Your task to perform on an android device: Open the stopwatch Image 0: 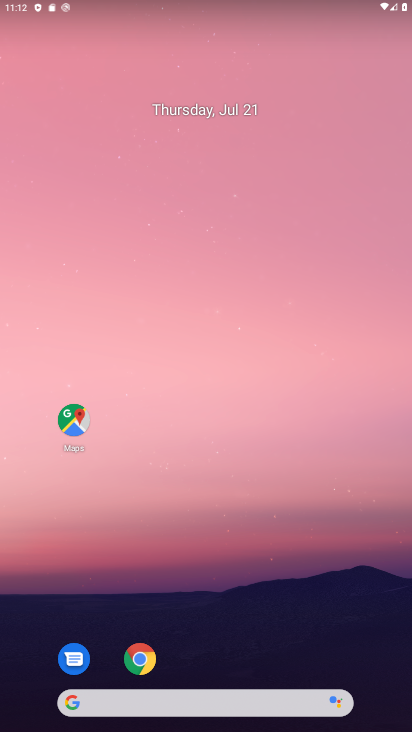
Step 0: drag from (219, 635) to (336, 2)
Your task to perform on an android device: Open the stopwatch Image 1: 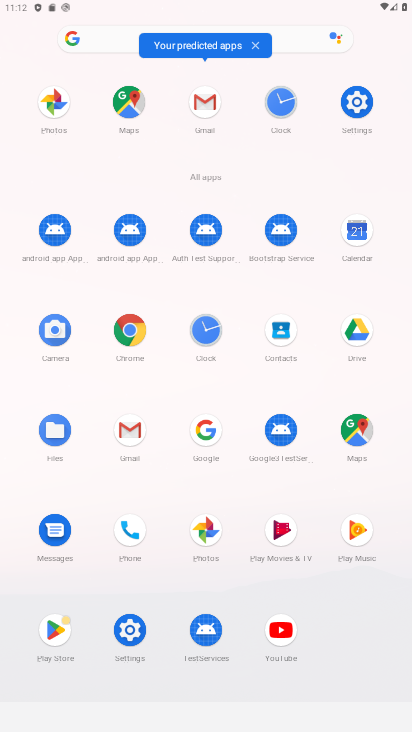
Step 1: click (280, 131)
Your task to perform on an android device: Open the stopwatch Image 2: 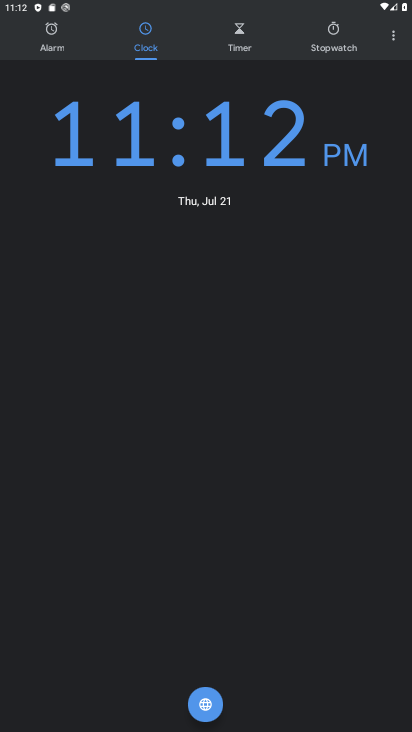
Step 2: click (365, 38)
Your task to perform on an android device: Open the stopwatch Image 3: 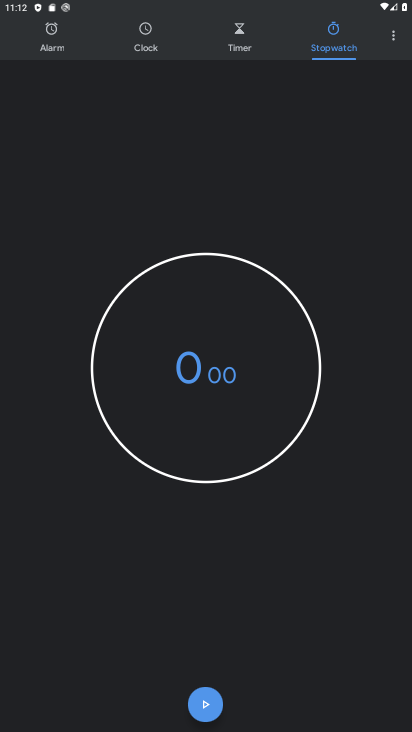
Step 3: click (350, 36)
Your task to perform on an android device: Open the stopwatch Image 4: 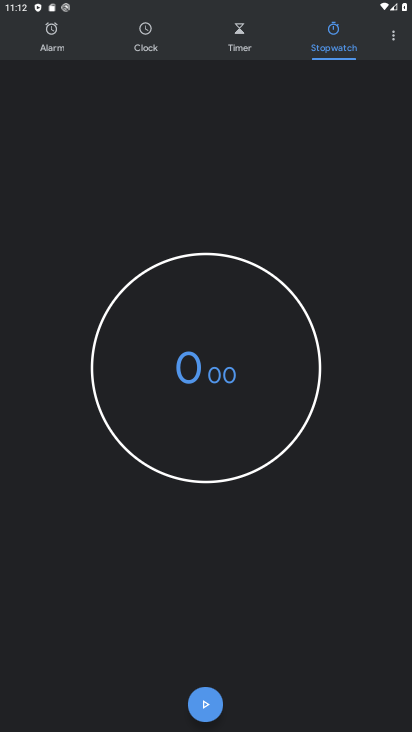
Step 4: task complete